Your task to perform on an android device: Go to accessibility settings Image 0: 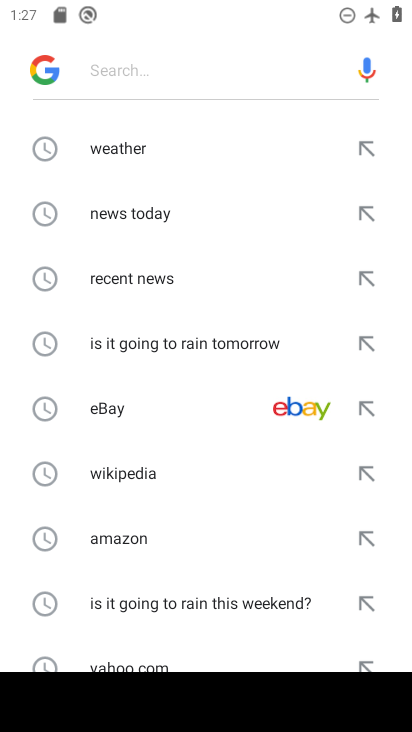
Step 0: press home button
Your task to perform on an android device: Go to accessibility settings Image 1: 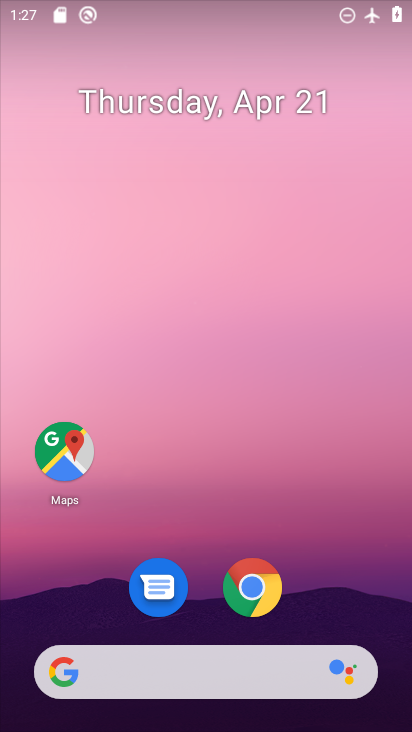
Step 1: drag from (308, 608) to (304, 214)
Your task to perform on an android device: Go to accessibility settings Image 2: 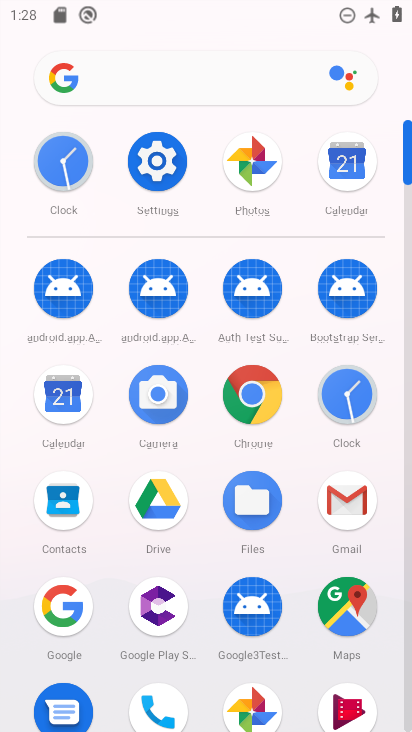
Step 2: click (155, 162)
Your task to perform on an android device: Go to accessibility settings Image 3: 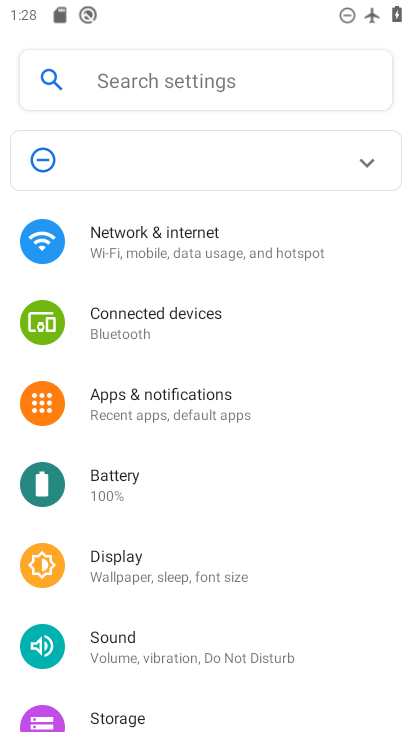
Step 3: drag from (244, 563) to (208, 373)
Your task to perform on an android device: Go to accessibility settings Image 4: 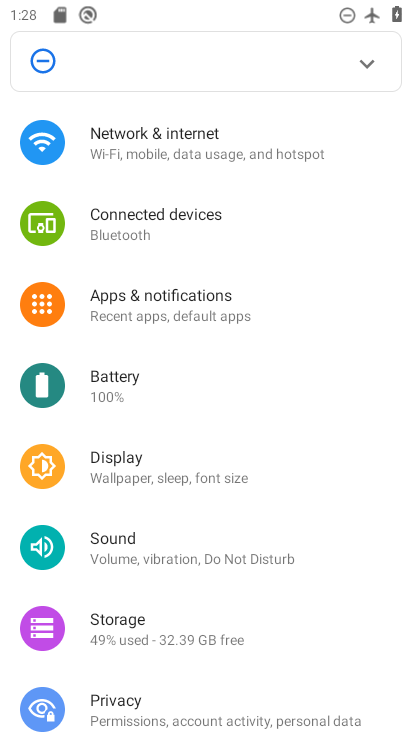
Step 4: drag from (268, 598) to (294, 279)
Your task to perform on an android device: Go to accessibility settings Image 5: 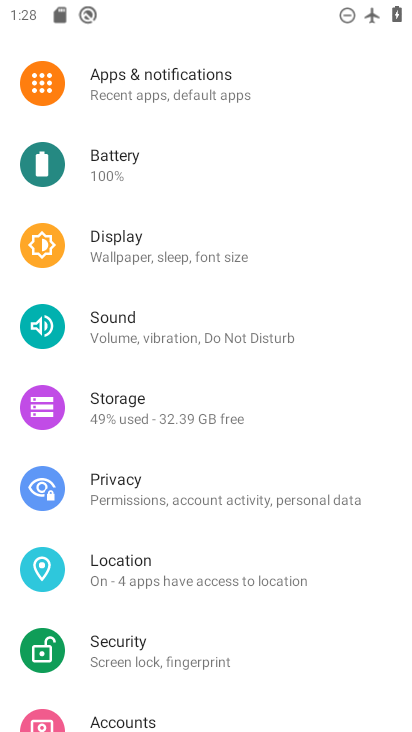
Step 5: drag from (261, 541) to (244, 263)
Your task to perform on an android device: Go to accessibility settings Image 6: 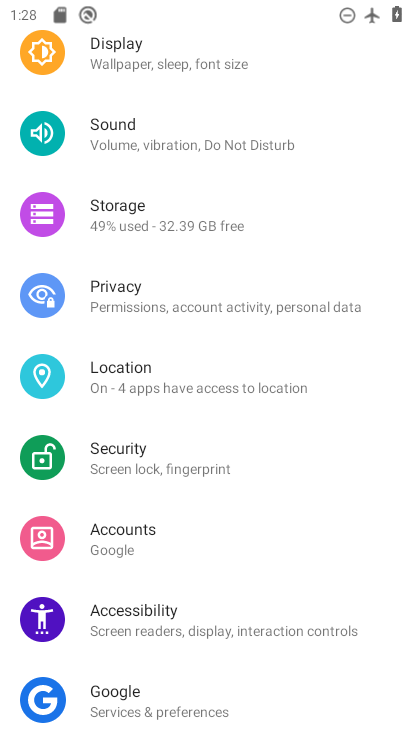
Step 6: click (166, 609)
Your task to perform on an android device: Go to accessibility settings Image 7: 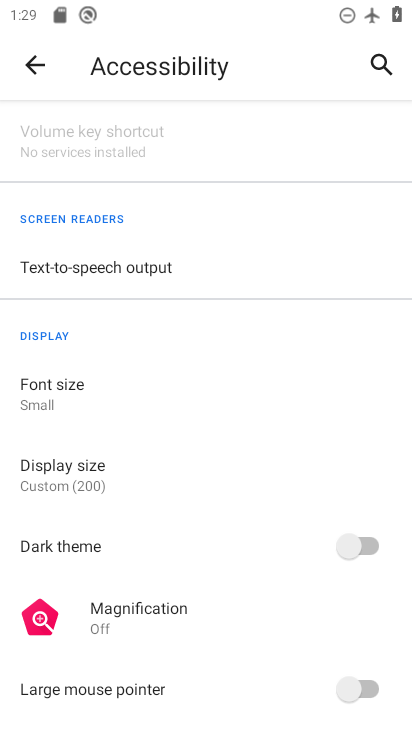
Step 7: task complete